Your task to perform on an android device: delete location history Image 0: 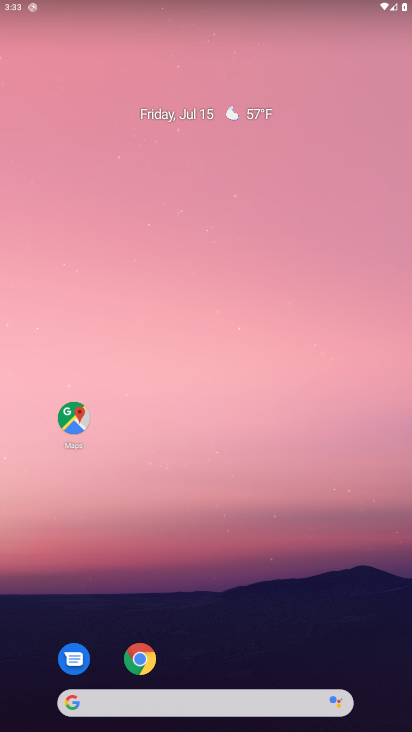
Step 0: drag from (26, 701) to (202, 178)
Your task to perform on an android device: delete location history Image 1: 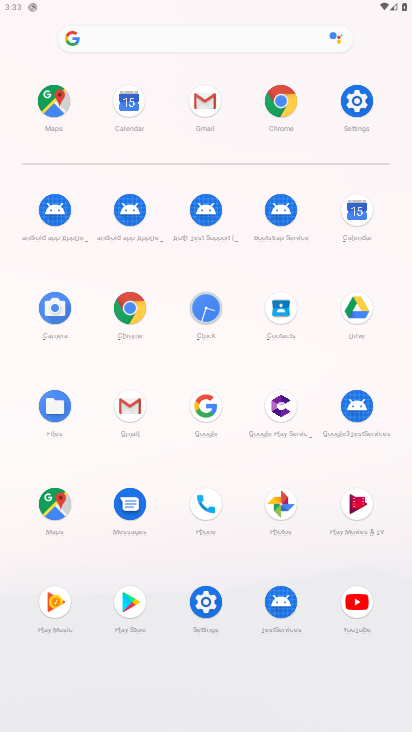
Step 1: click (200, 589)
Your task to perform on an android device: delete location history Image 2: 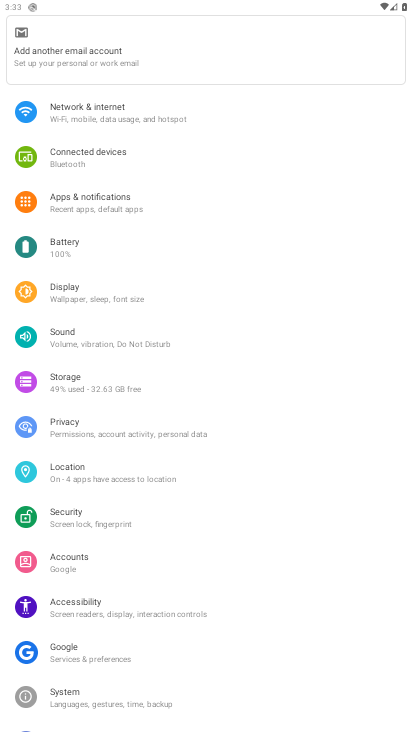
Step 2: click (84, 478)
Your task to perform on an android device: delete location history Image 3: 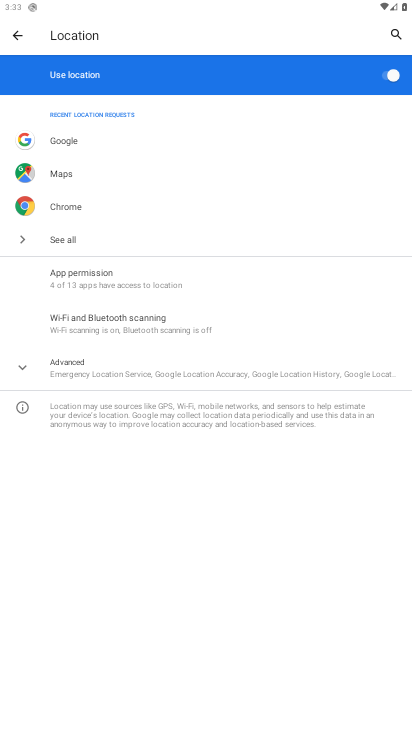
Step 3: click (118, 370)
Your task to perform on an android device: delete location history Image 4: 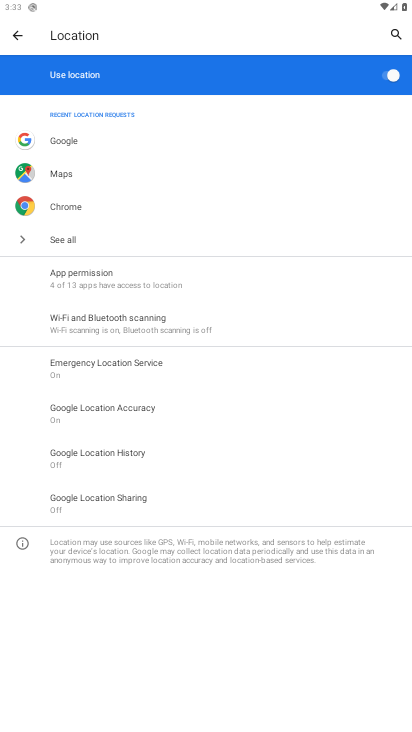
Step 4: click (95, 439)
Your task to perform on an android device: delete location history Image 5: 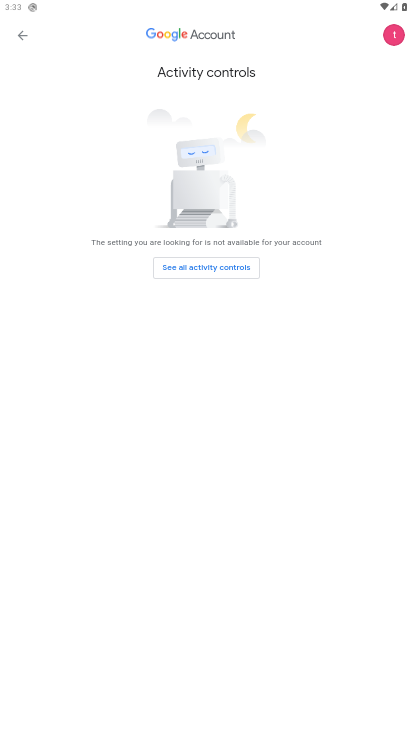
Step 5: task complete